Your task to perform on an android device: What's the news in Thailand? Image 0: 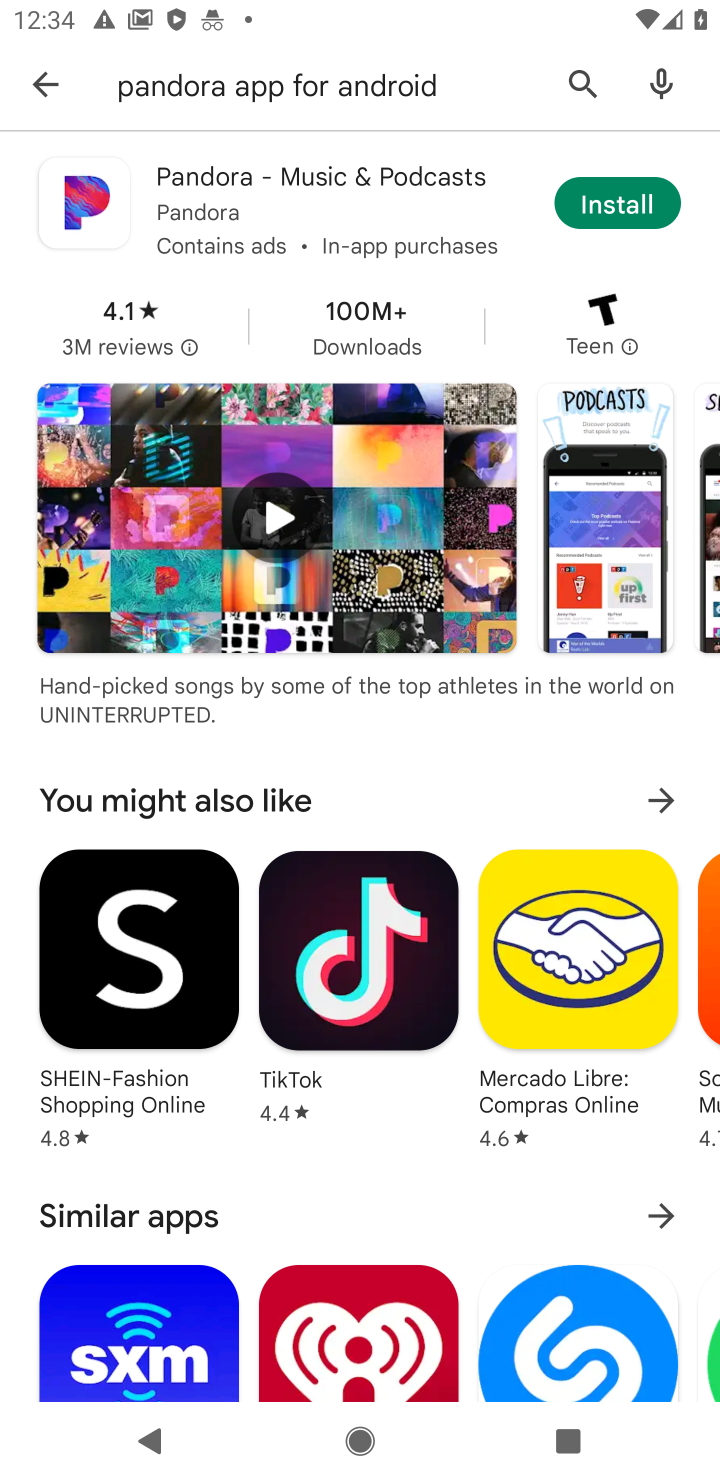
Step 0: press home button
Your task to perform on an android device: What's the news in Thailand? Image 1: 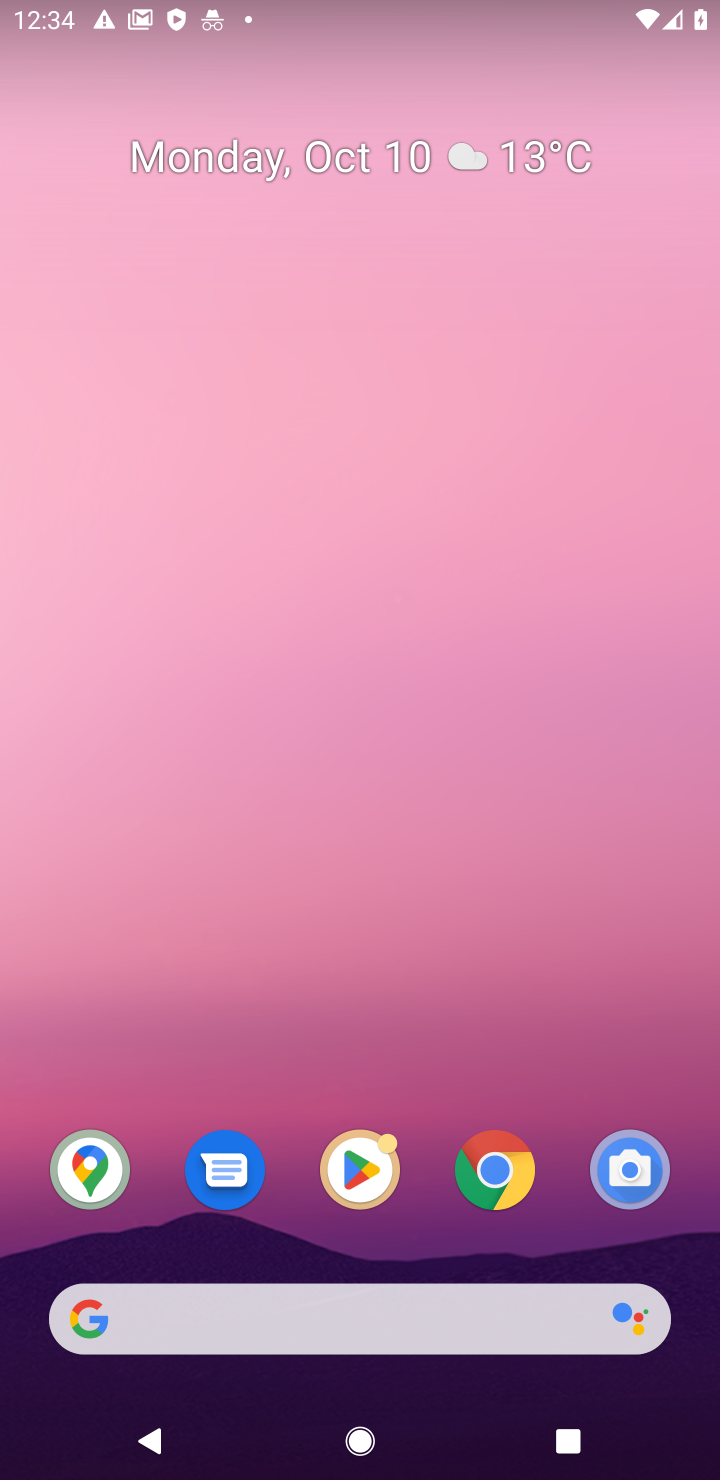
Step 1: click (492, 1166)
Your task to perform on an android device: What's the news in Thailand? Image 2: 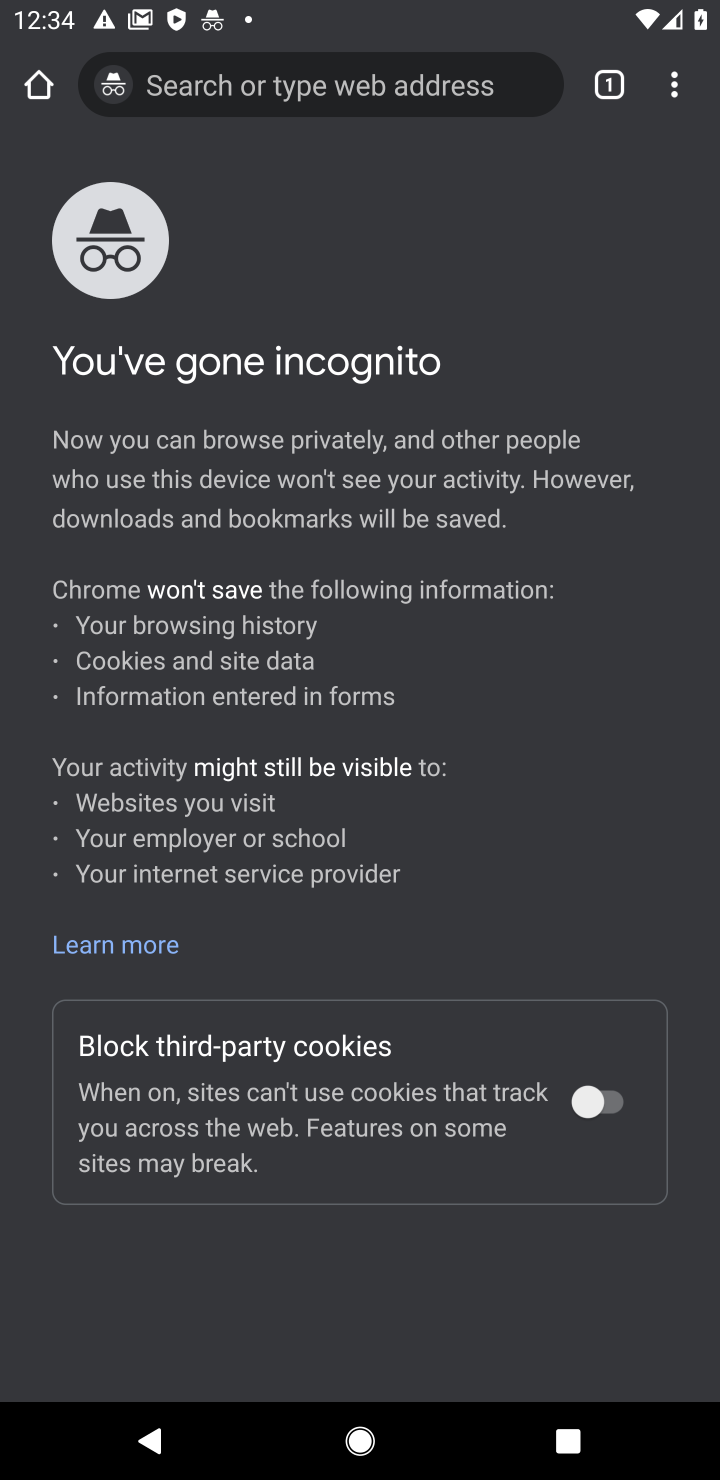
Step 2: click (390, 87)
Your task to perform on an android device: What's the news in Thailand? Image 3: 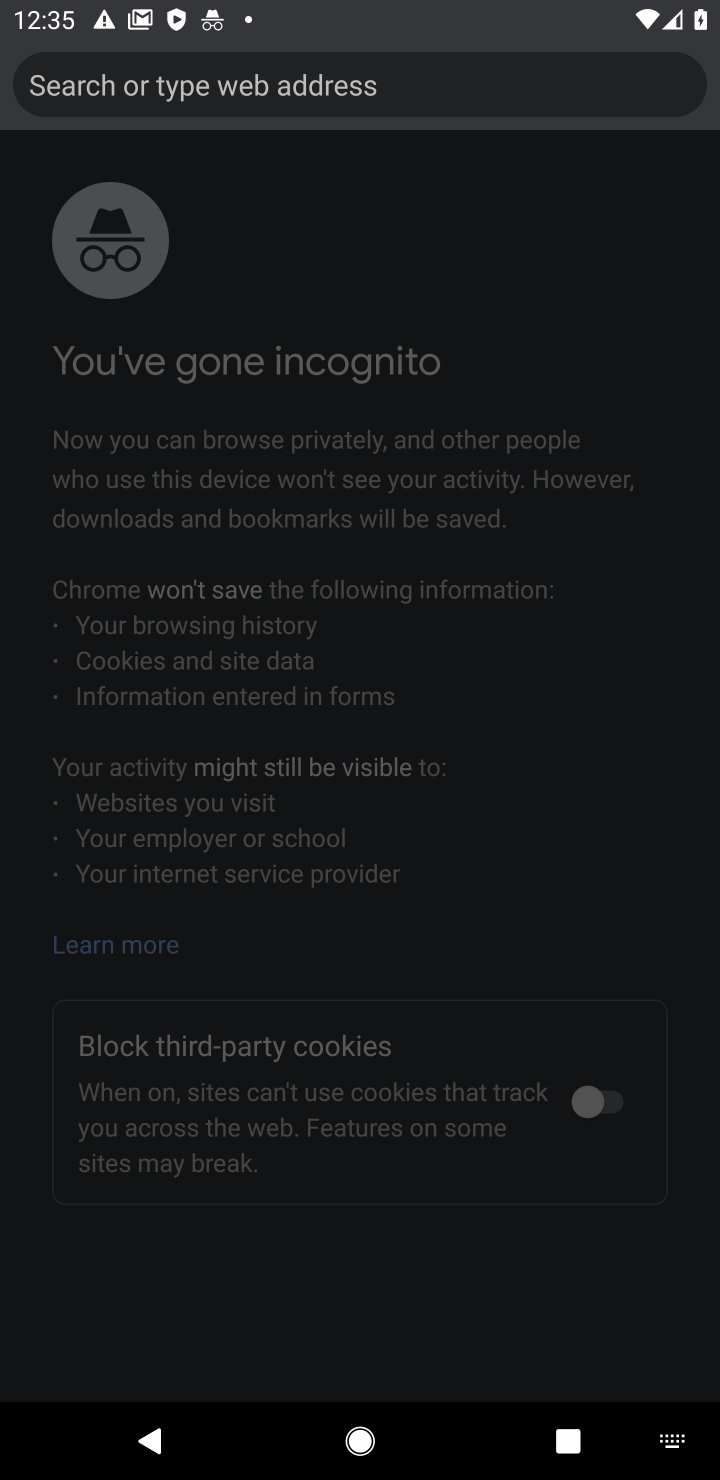
Step 3: type "What's the news in Thailand"
Your task to perform on an android device: What's the news in Thailand? Image 4: 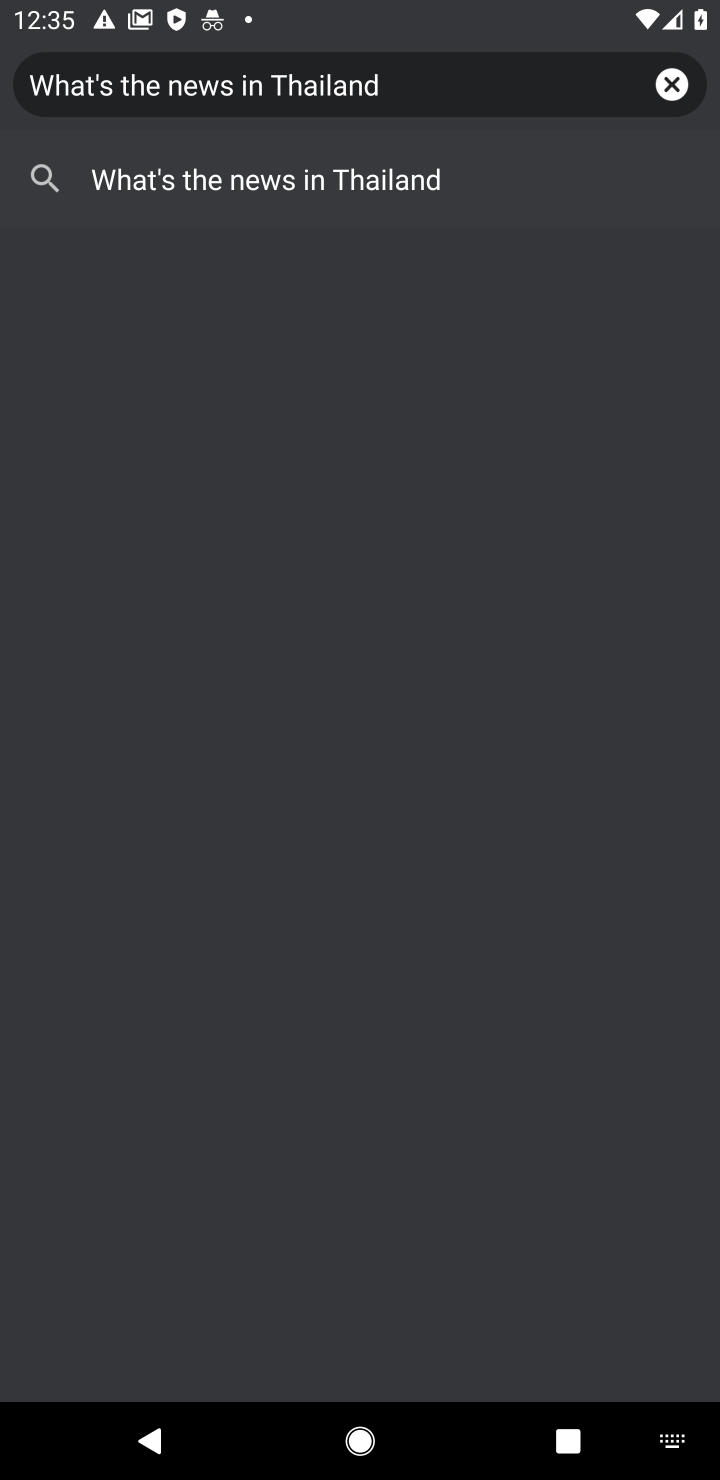
Step 4: click (425, 192)
Your task to perform on an android device: What's the news in Thailand? Image 5: 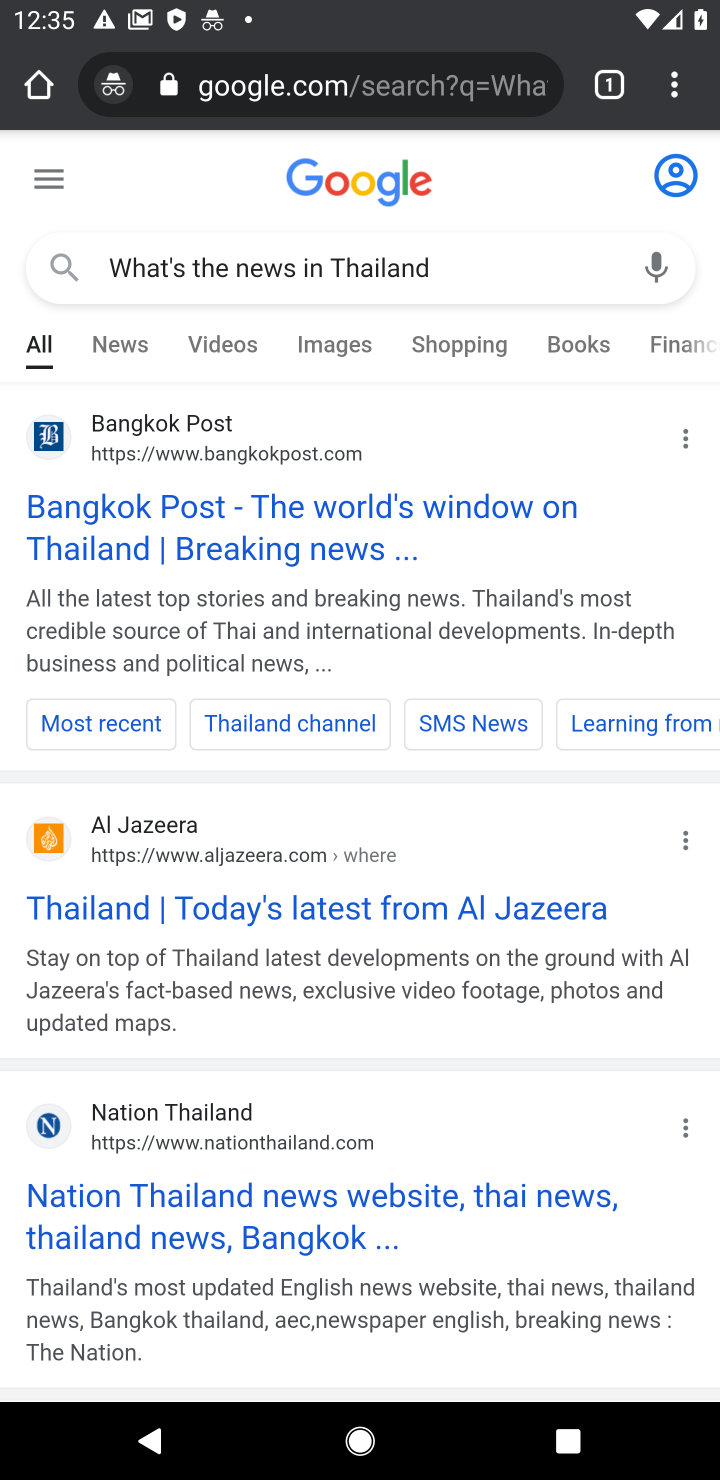
Step 5: click (266, 1127)
Your task to perform on an android device: What's the news in Thailand? Image 6: 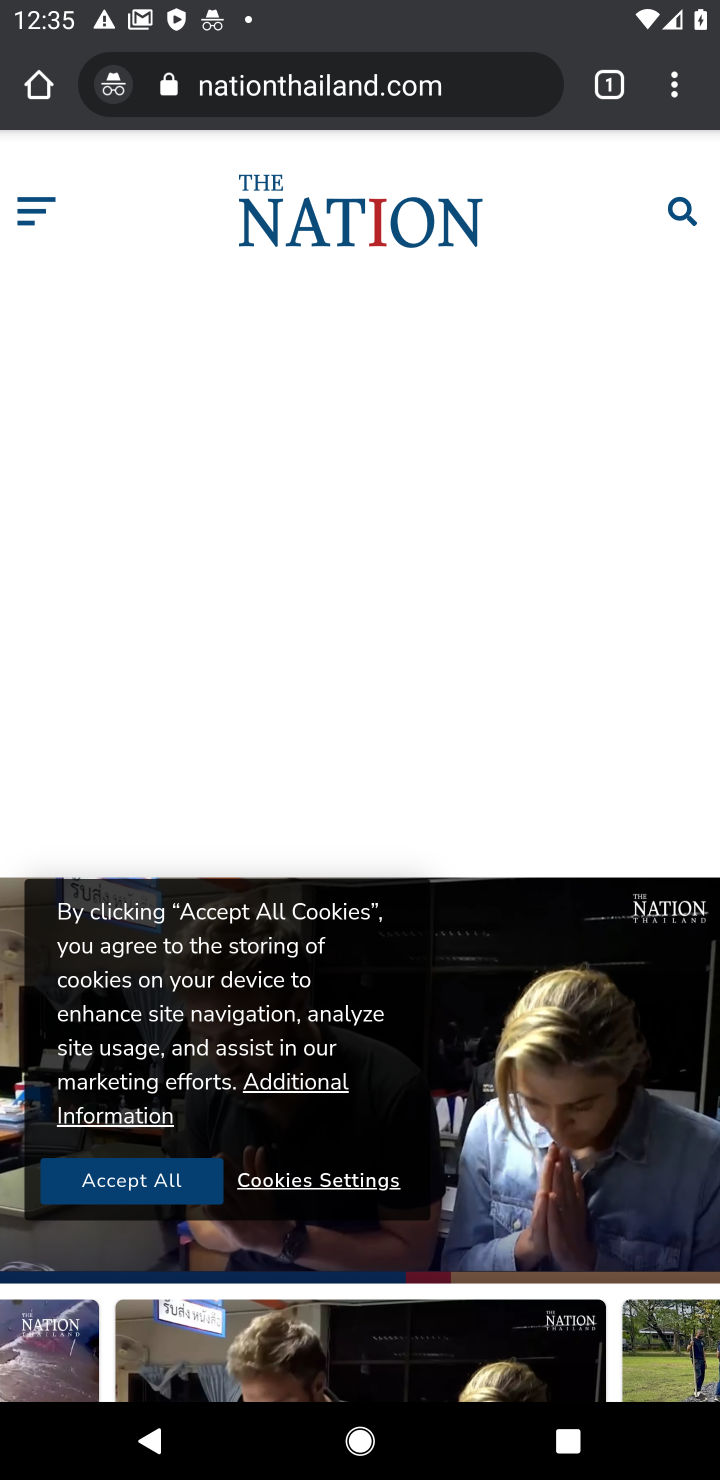
Step 6: task complete